Your task to perform on an android device: toggle show notifications on the lock screen Image 0: 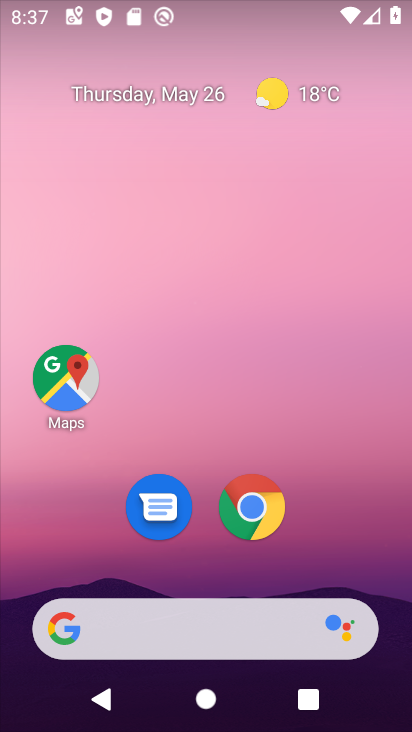
Step 0: drag from (257, 637) to (287, 212)
Your task to perform on an android device: toggle show notifications on the lock screen Image 1: 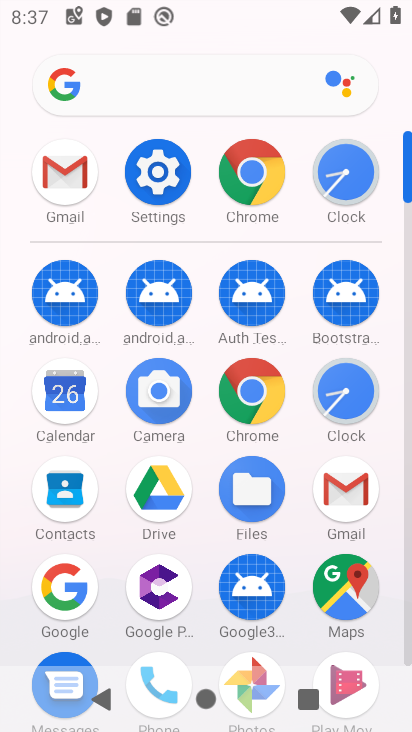
Step 1: click (163, 165)
Your task to perform on an android device: toggle show notifications on the lock screen Image 2: 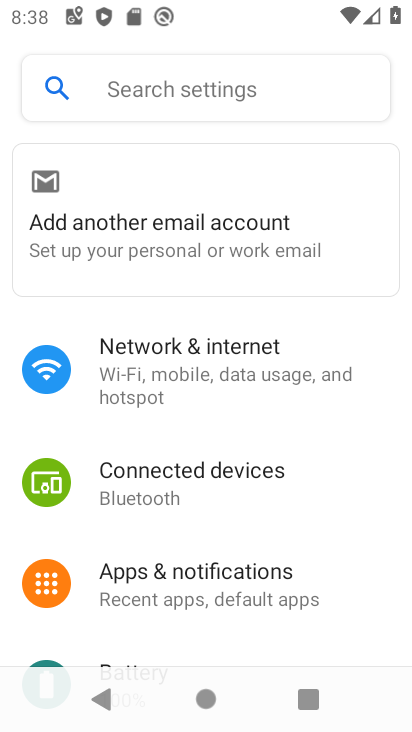
Step 2: click (137, 80)
Your task to perform on an android device: toggle show notifications on the lock screen Image 3: 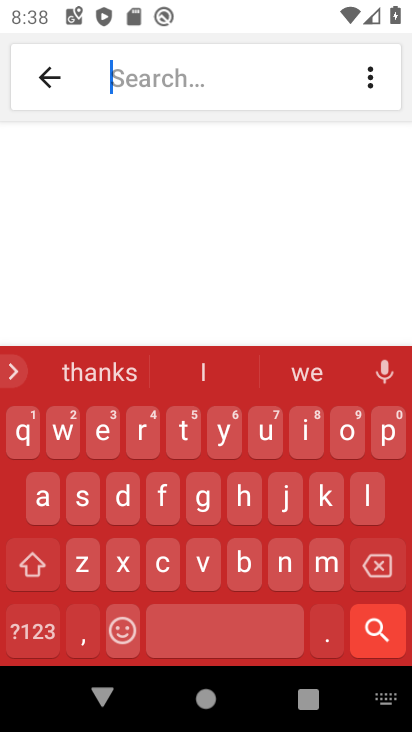
Step 3: click (284, 569)
Your task to perform on an android device: toggle show notifications on the lock screen Image 4: 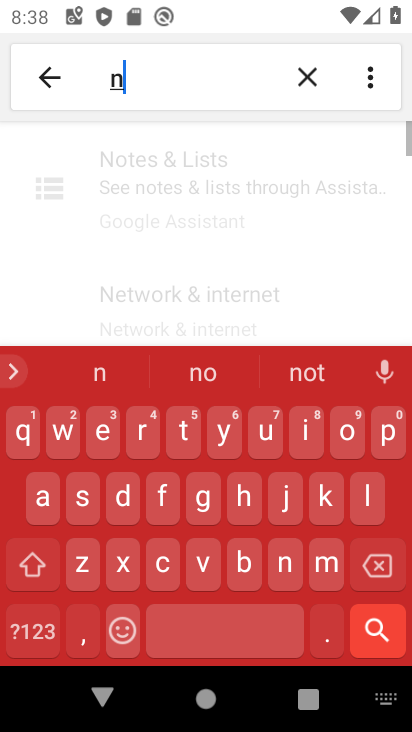
Step 4: click (353, 442)
Your task to perform on an android device: toggle show notifications on the lock screen Image 5: 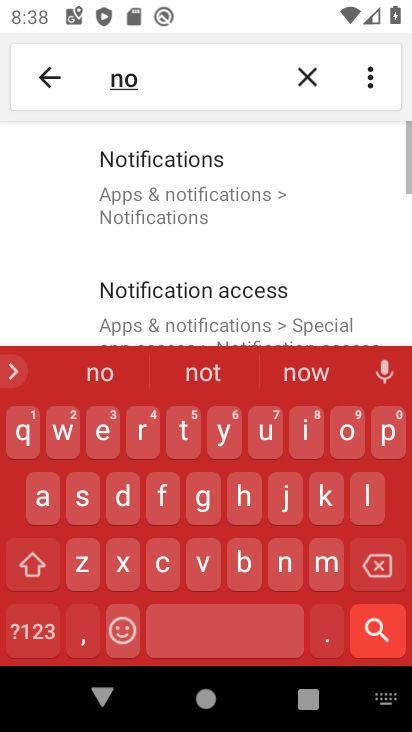
Step 5: click (196, 180)
Your task to perform on an android device: toggle show notifications on the lock screen Image 6: 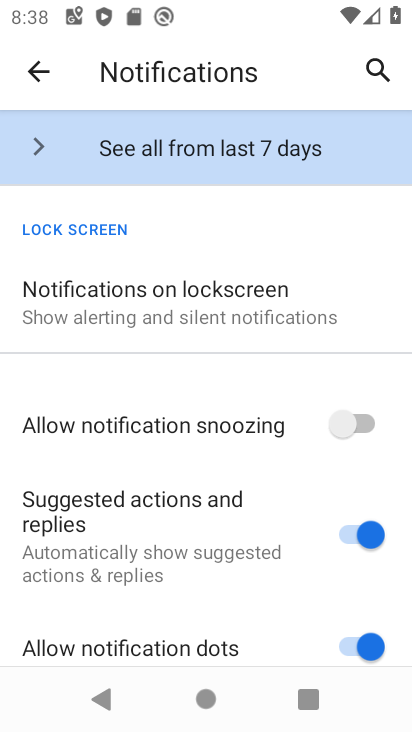
Step 6: click (123, 307)
Your task to perform on an android device: toggle show notifications on the lock screen Image 7: 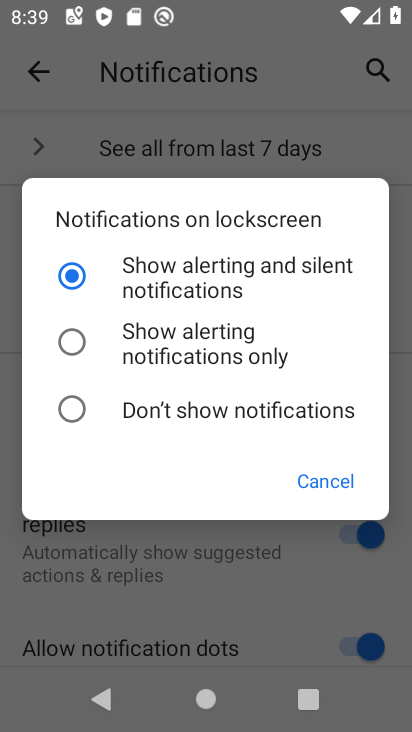
Step 7: task complete